Your task to perform on an android device: Go to display settings Image 0: 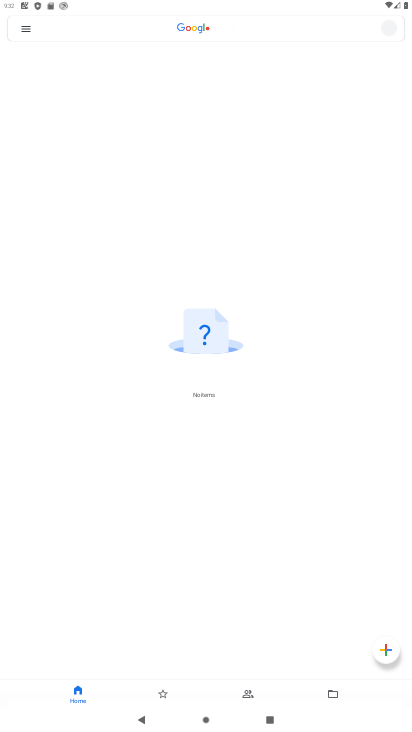
Step 0: drag from (307, 576) to (322, 0)
Your task to perform on an android device: Go to display settings Image 1: 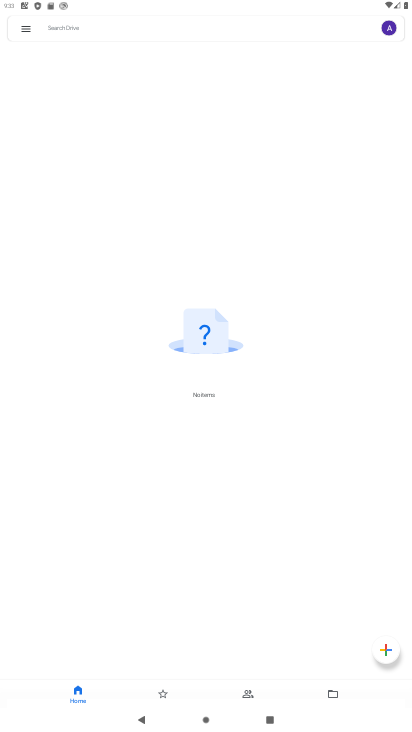
Step 1: press home button
Your task to perform on an android device: Go to display settings Image 2: 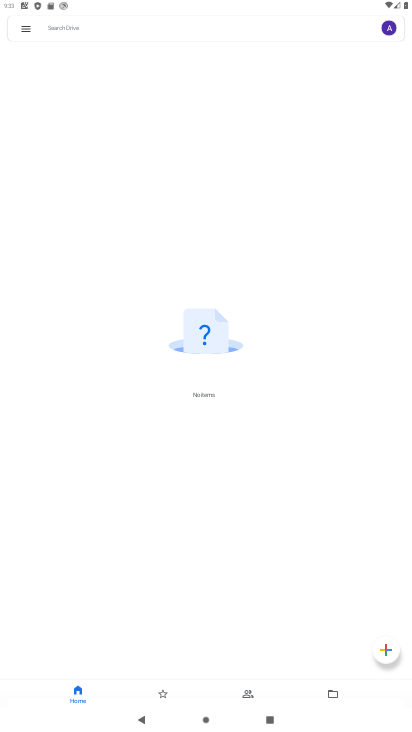
Step 2: drag from (322, 0) to (406, 493)
Your task to perform on an android device: Go to display settings Image 3: 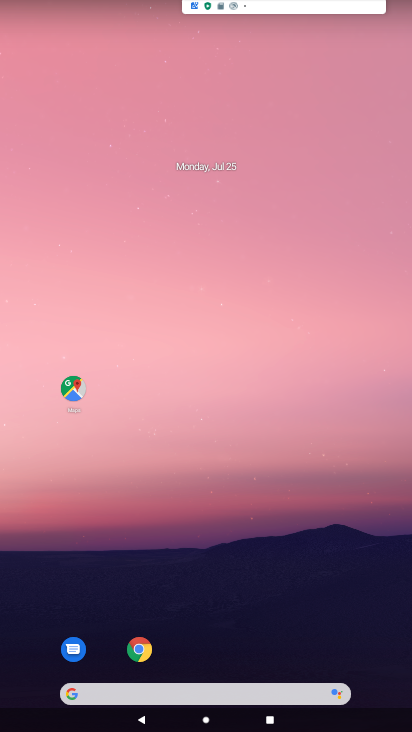
Step 3: drag from (243, 506) to (139, 4)
Your task to perform on an android device: Go to display settings Image 4: 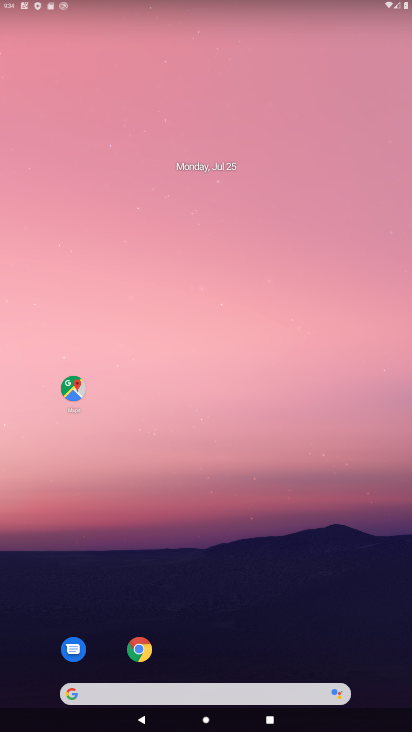
Step 4: drag from (243, 579) to (106, 9)
Your task to perform on an android device: Go to display settings Image 5: 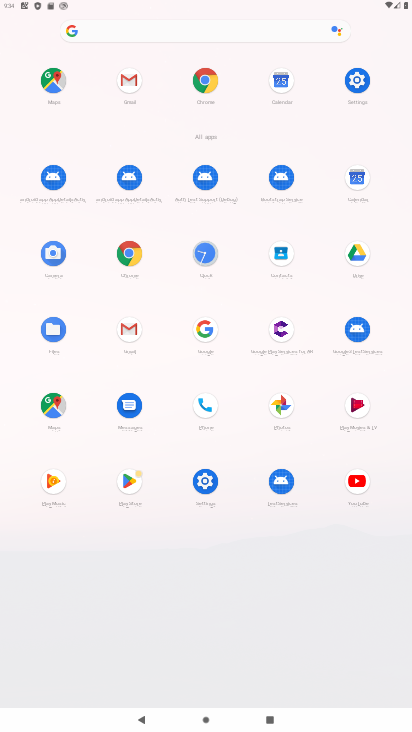
Step 5: click (355, 81)
Your task to perform on an android device: Go to display settings Image 6: 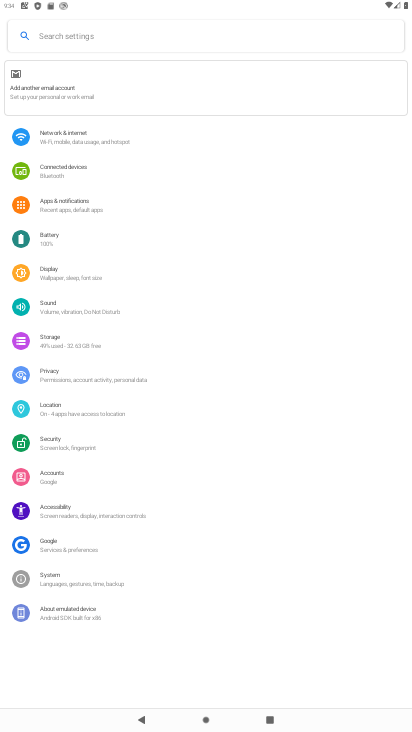
Step 6: click (89, 275)
Your task to perform on an android device: Go to display settings Image 7: 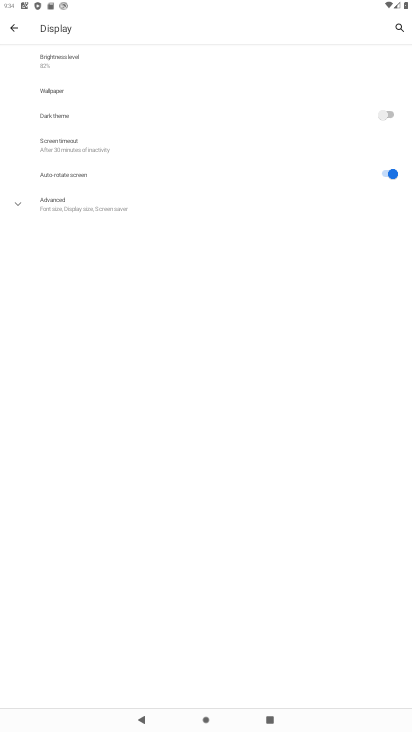
Step 7: task complete